Your task to perform on an android device: toggle priority inbox in the gmail app Image 0: 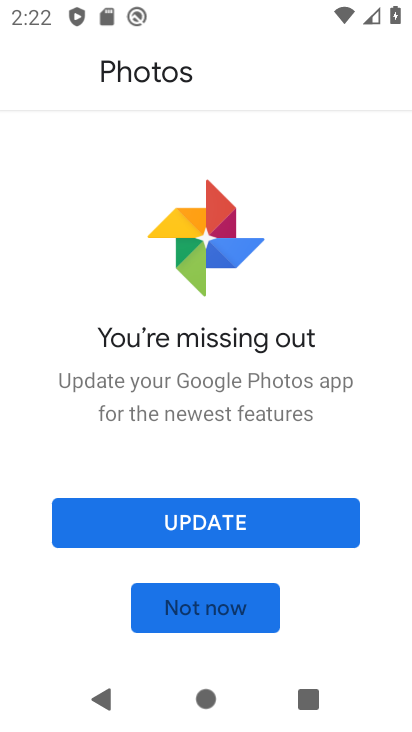
Step 0: press home button
Your task to perform on an android device: toggle priority inbox in the gmail app Image 1: 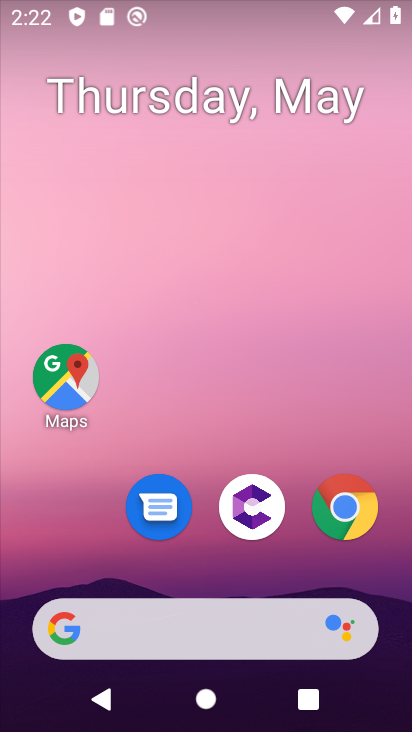
Step 1: drag from (300, 569) to (243, 132)
Your task to perform on an android device: toggle priority inbox in the gmail app Image 2: 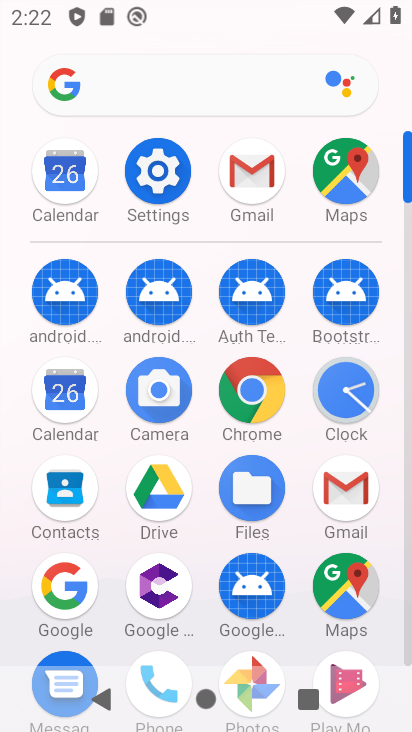
Step 2: click (241, 180)
Your task to perform on an android device: toggle priority inbox in the gmail app Image 3: 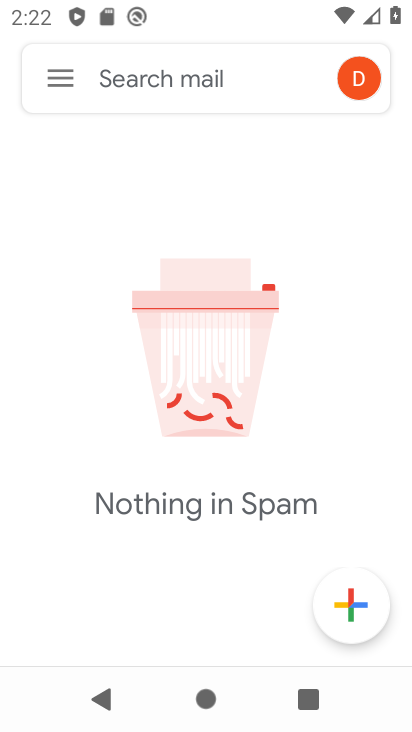
Step 3: click (44, 83)
Your task to perform on an android device: toggle priority inbox in the gmail app Image 4: 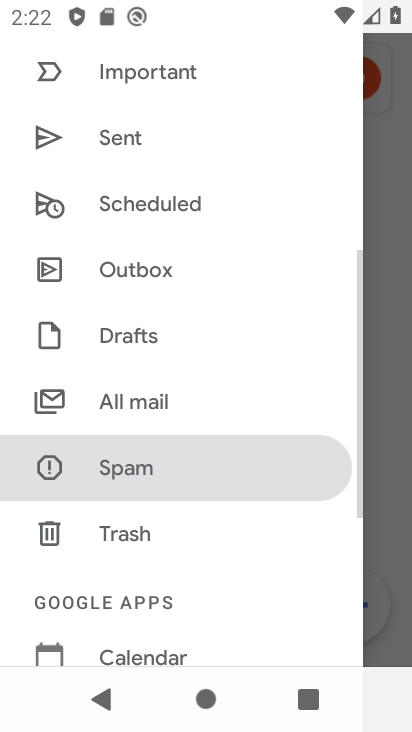
Step 4: drag from (127, 536) to (193, 217)
Your task to perform on an android device: toggle priority inbox in the gmail app Image 5: 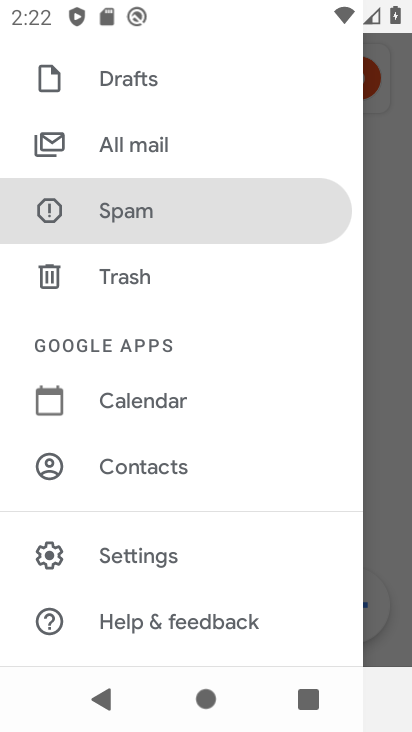
Step 5: click (145, 563)
Your task to perform on an android device: toggle priority inbox in the gmail app Image 6: 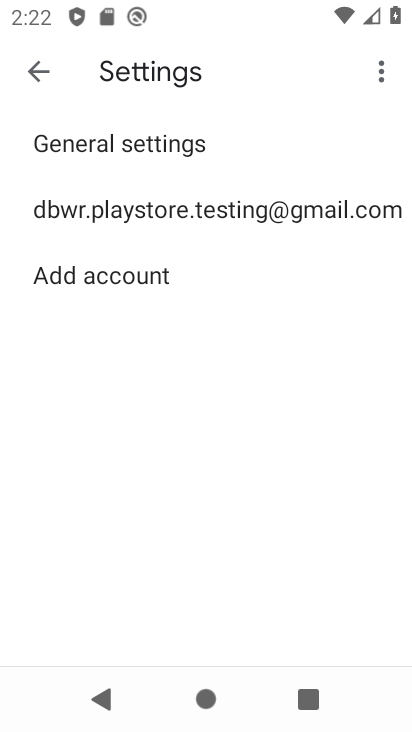
Step 6: click (160, 212)
Your task to perform on an android device: toggle priority inbox in the gmail app Image 7: 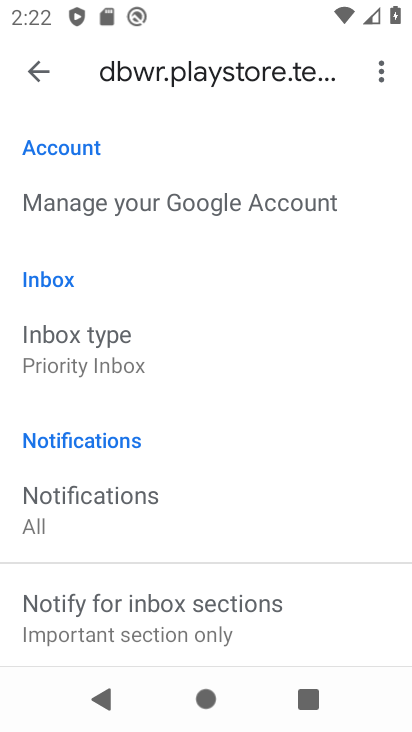
Step 7: click (91, 344)
Your task to perform on an android device: toggle priority inbox in the gmail app Image 8: 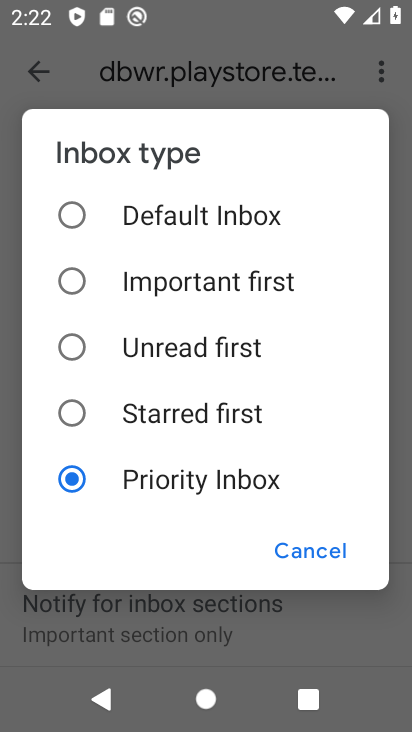
Step 8: click (82, 224)
Your task to perform on an android device: toggle priority inbox in the gmail app Image 9: 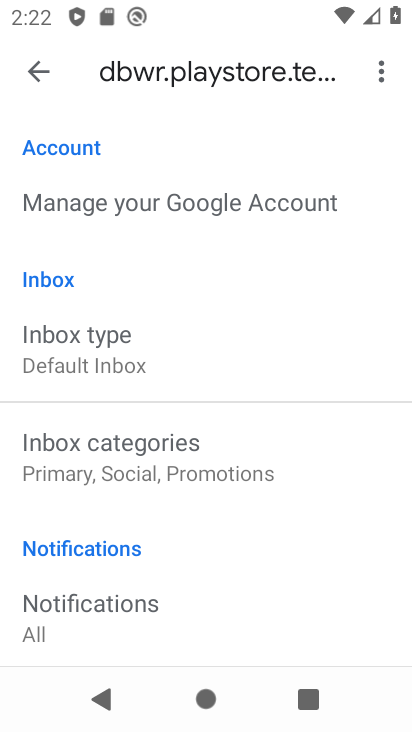
Step 9: task complete